Your task to perform on an android device: refresh tabs in the chrome app Image 0: 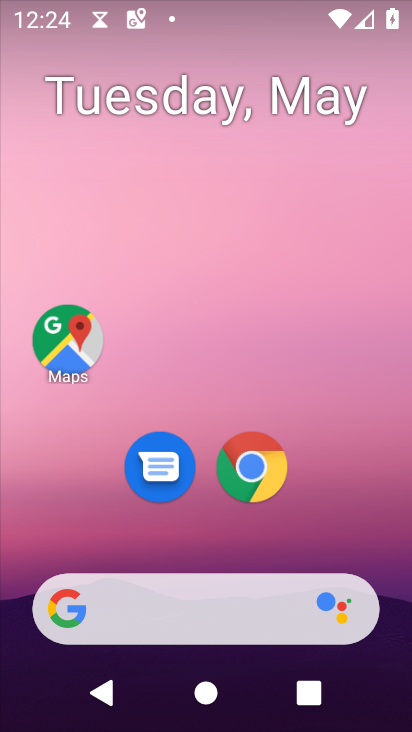
Step 0: click (260, 473)
Your task to perform on an android device: refresh tabs in the chrome app Image 1: 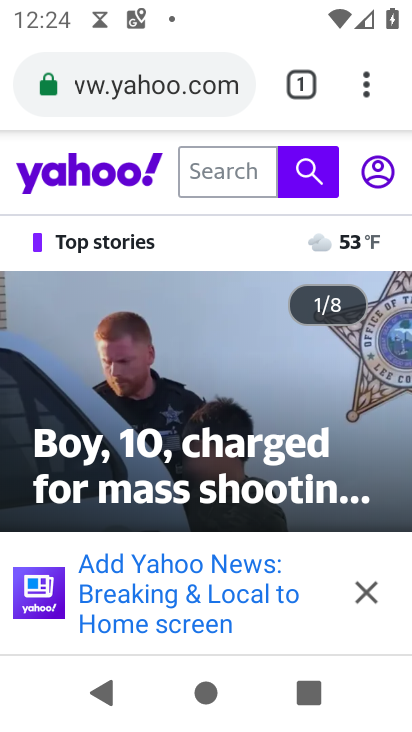
Step 1: click (374, 91)
Your task to perform on an android device: refresh tabs in the chrome app Image 2: 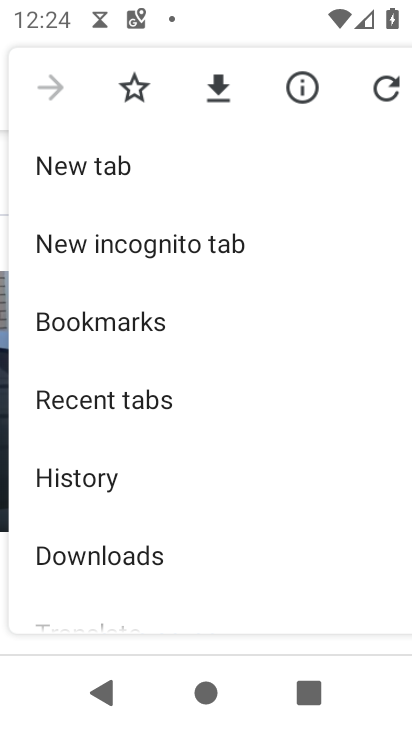
Step 2: click (392, 84)
Your task to perform on an android device: refresh tabs in the chrome app Image 3: 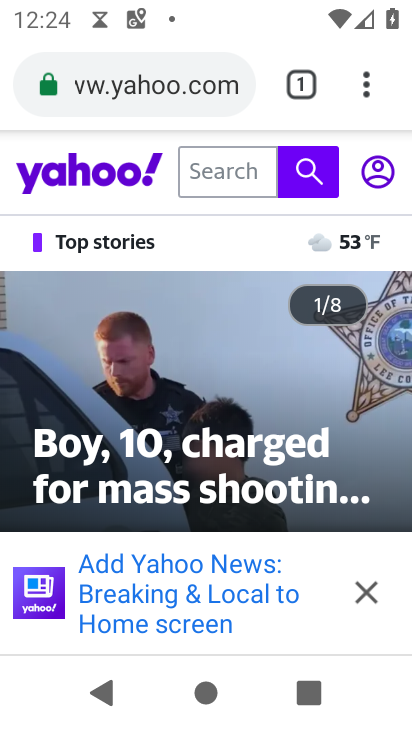
Step 3: task complete